Your task to perform on an android device: refresh tabs in the chrome app Image 0: 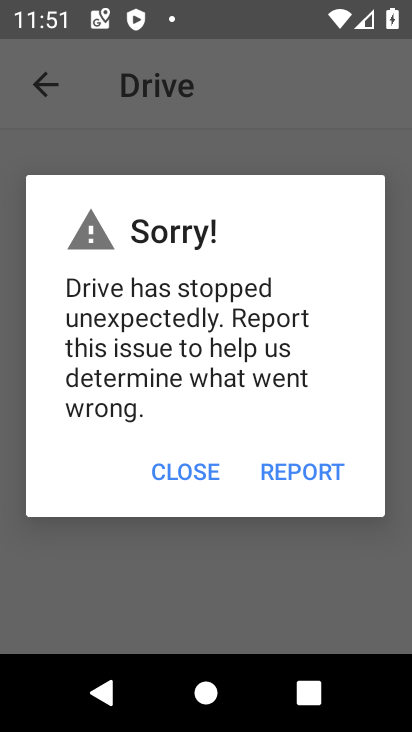
Step 0: press home button
Your task to perform on an android device: refresh tabs in the chrome app Image 1: 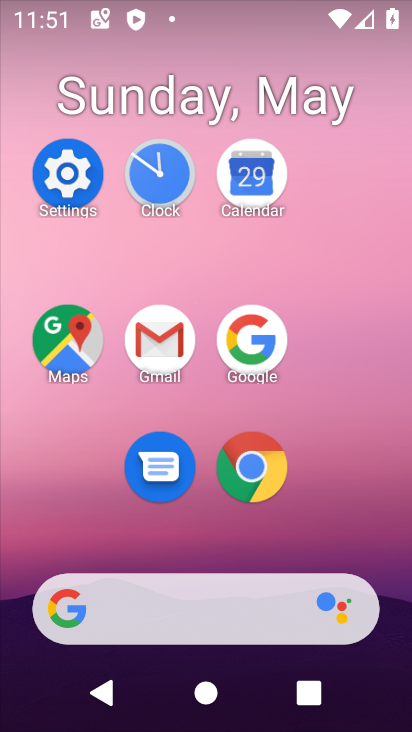
Step 1: click (281, 483)
Your task to perform on an android device: refresh tabs in the chrome app Image 2: 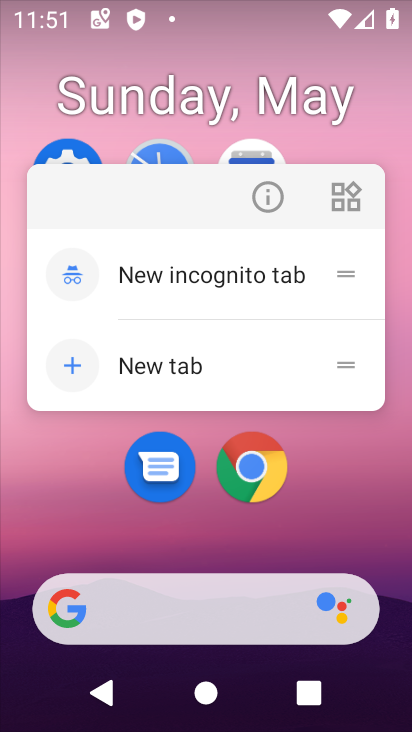
Step 2: click (281, 483)
Your task to perform on an android device: refresh tabs in the chrome app Image 3: 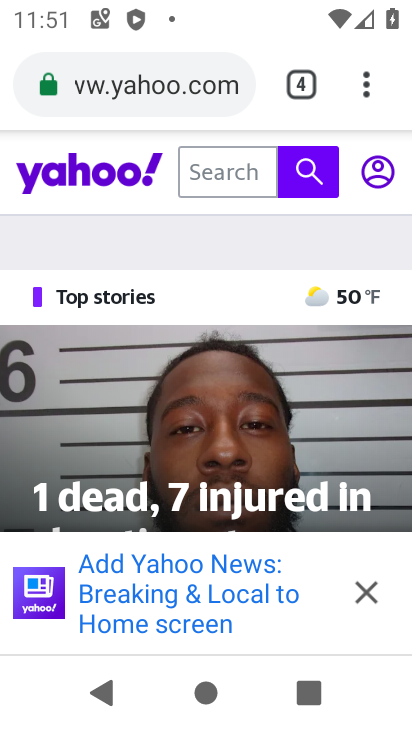
Step 3: click (384, 77)
Your task to perform on an android device: refresh tabs in the chrome app Image 4: 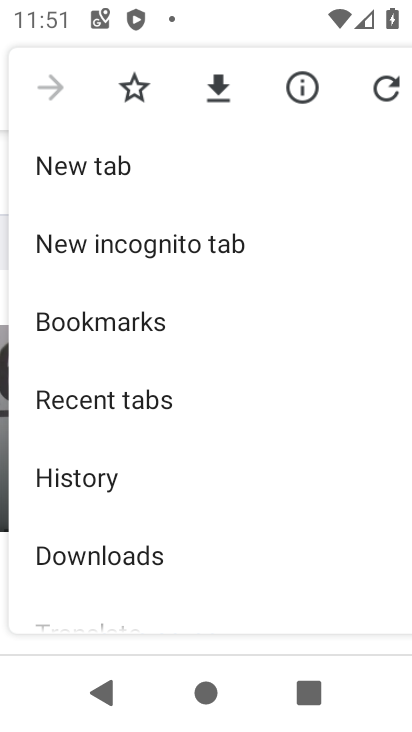
Step 4: click (399, 93)
Your task to perform on an android device: refresh tabs in the chrome app Image 5: 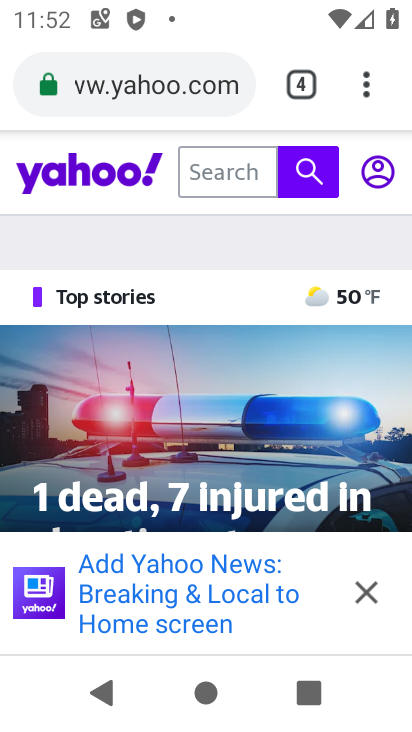
Step 5: click (372, 84)
Your task to perform on an android device: refresh tabs in the chrome app Image 6: 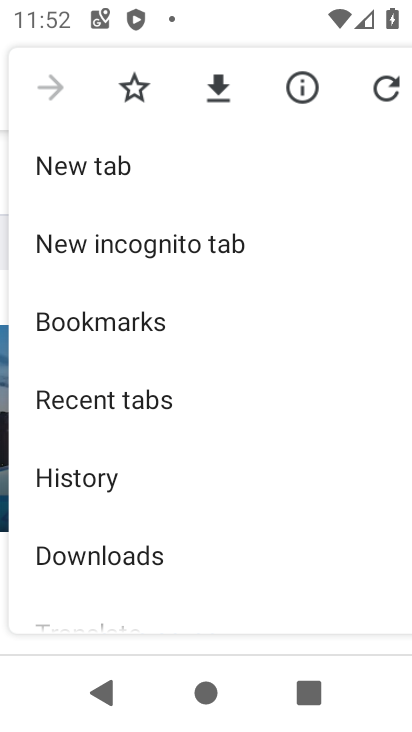
Step 6: click (388, 83)
Your task to perform on an android device: refresh tabs in the chrome app Image 7: 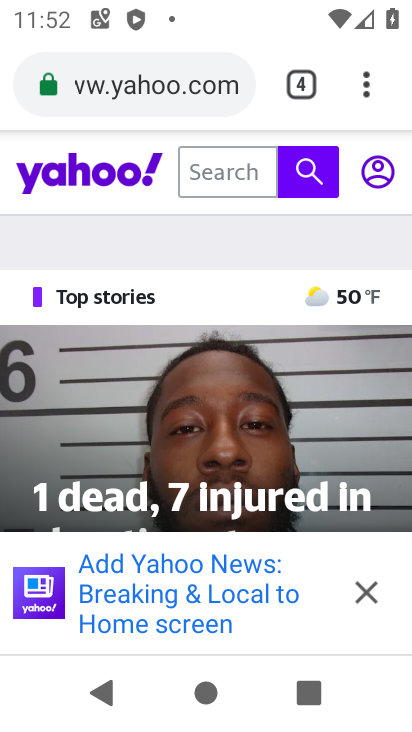
Step 7: task complete